Your task to perform on an android device: Go to Maps Image 0: 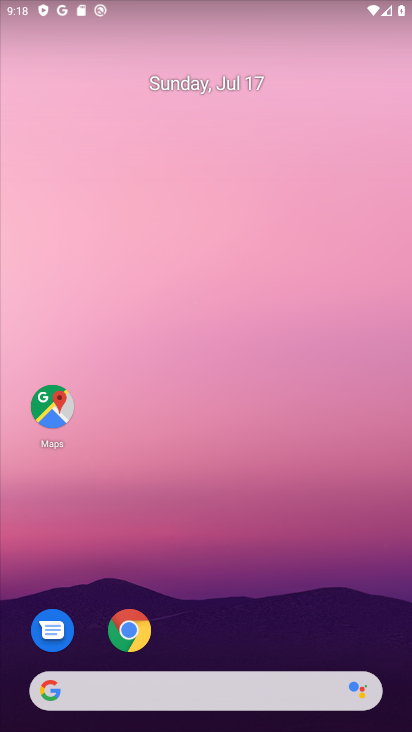
Step 0: press home button
Your task to perform on an android device: Go to Maps Image 1: 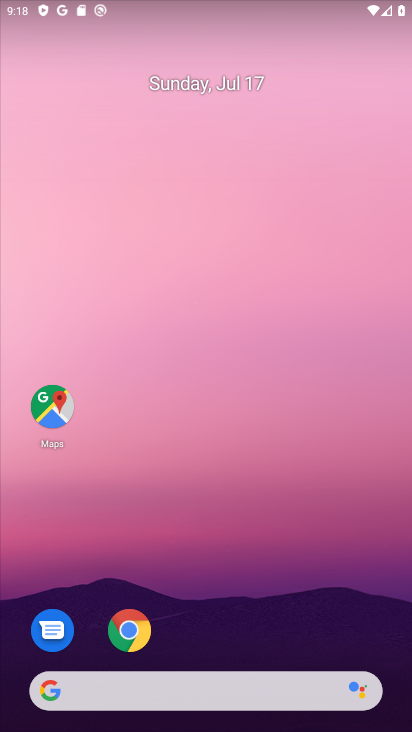
Step 1: click (50, 402)
Your task to perform on an android device: Go to Maps Image 2: 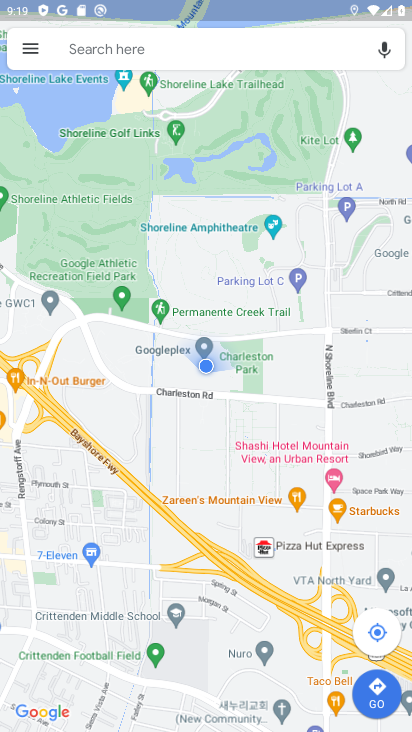
Step 2: task complete